Your task to perform on an android device: set an alarm Image 0: 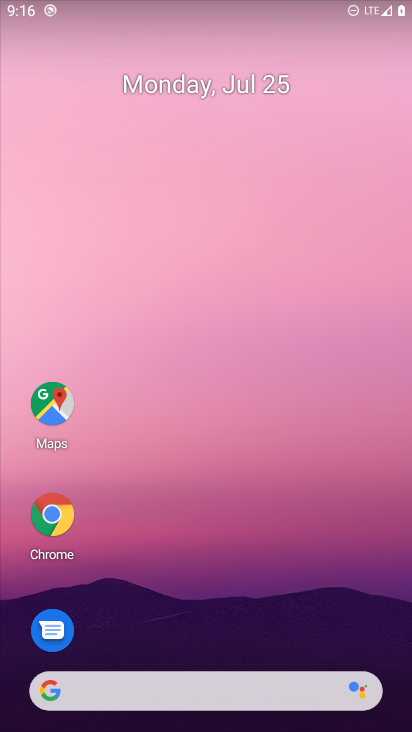
Step 0: drag from (121, 323) to (216, 70)
Your task to perform on an android device: set an alarm Image 1: 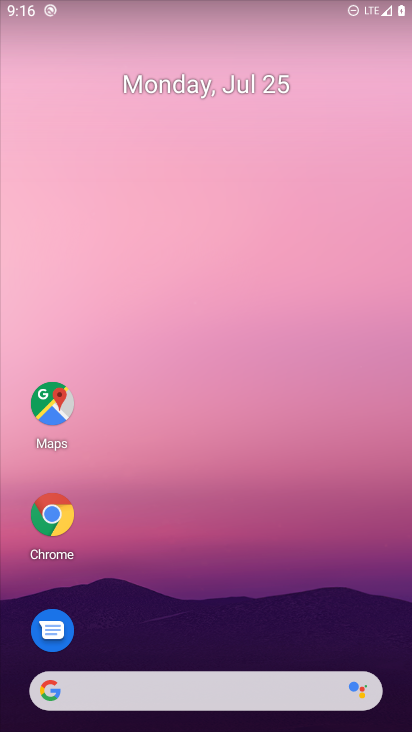
Step 1: drag from (96, 577) to (395, 3)
Your task to perform on an android device: set an alarm Image 2: 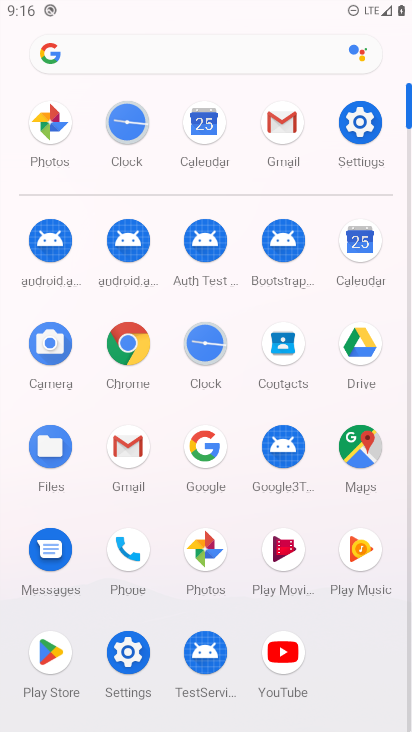
Step 2: click (196, 424)
Your task to perform on an android device: set an alarm Image 3: 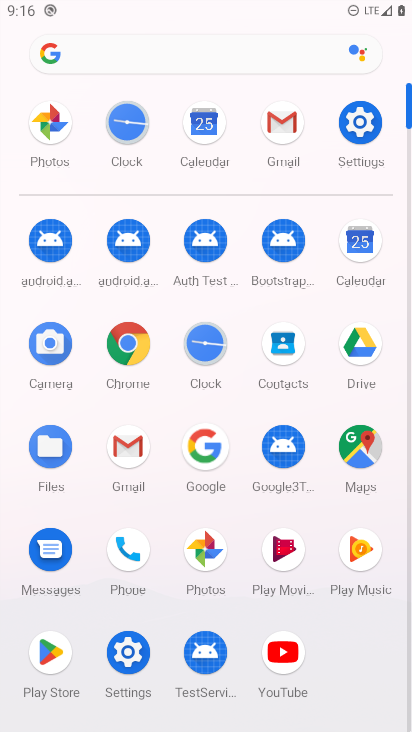
Step 3: click (197, 357)
Your task to perform on an android device: set an alarm Image 4: 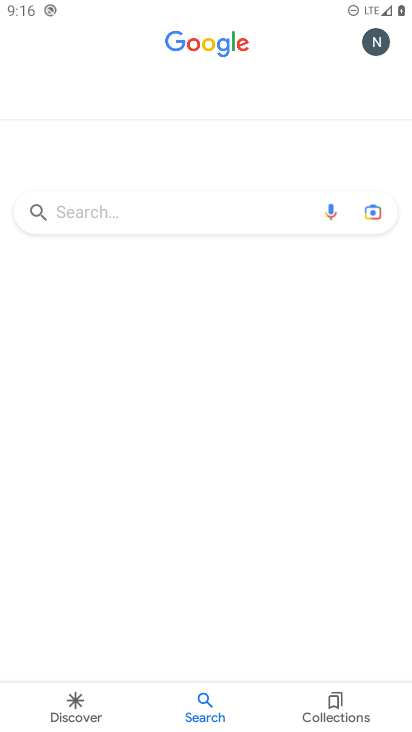
Step 4: press home button
Your task to perform on an android device: set an alarm Image 5: 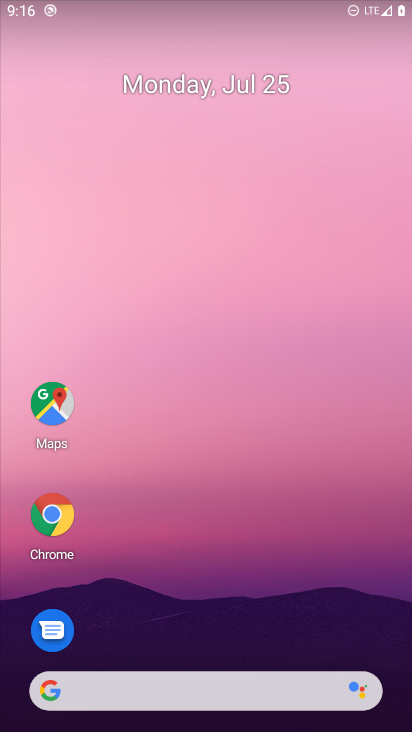
Step 5: drag from (122, 456) to (227, 262)
Your task to perform on an android device: set an alarm Image 6: 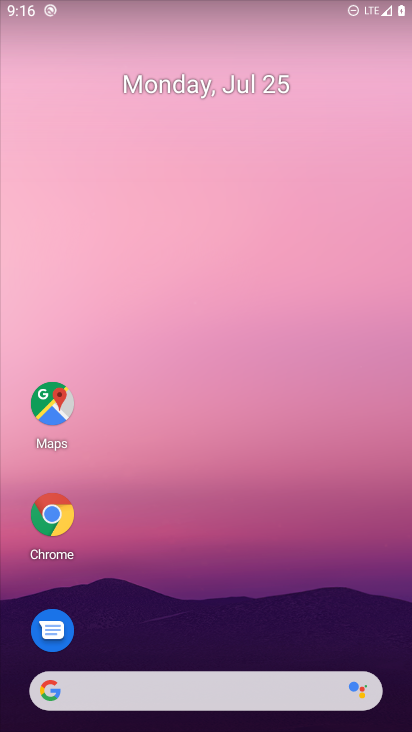
Step 6: click (178, 258)
Your task to perform on an android device: set an alarm Image 7: 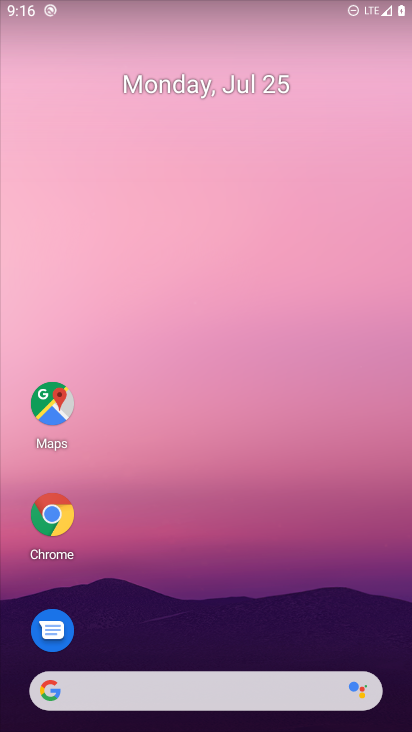
Step 7: task complete